Your task to perform on an android device: Check the news Image 0: 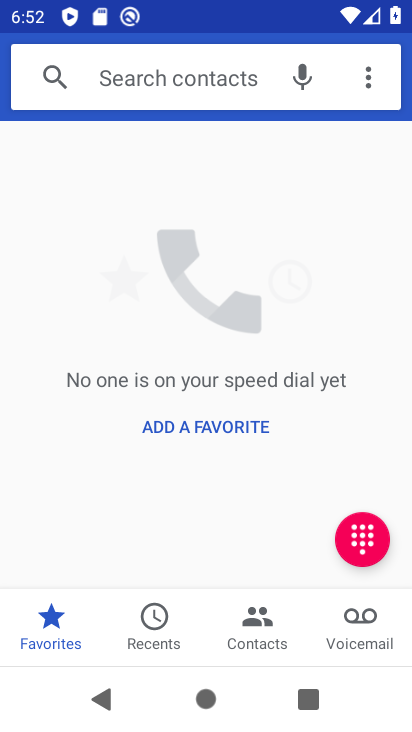
Step 0: press home button
Your task to perform on an android device: Check the news Image 1: 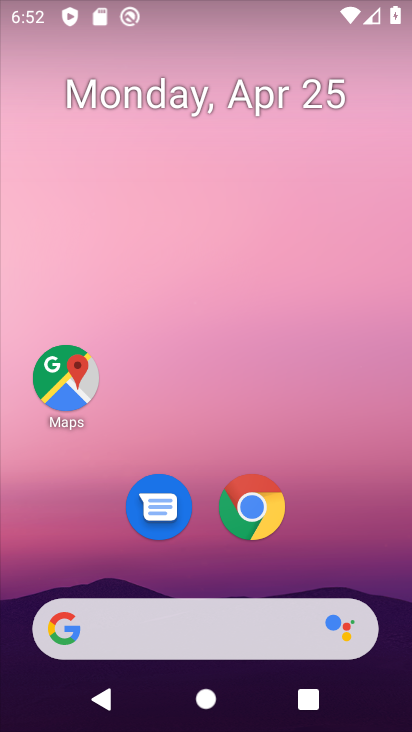
Step 1: drag from (329, 537) to (313, 206)
Your task to perform on an android device: Check the news Image 2: 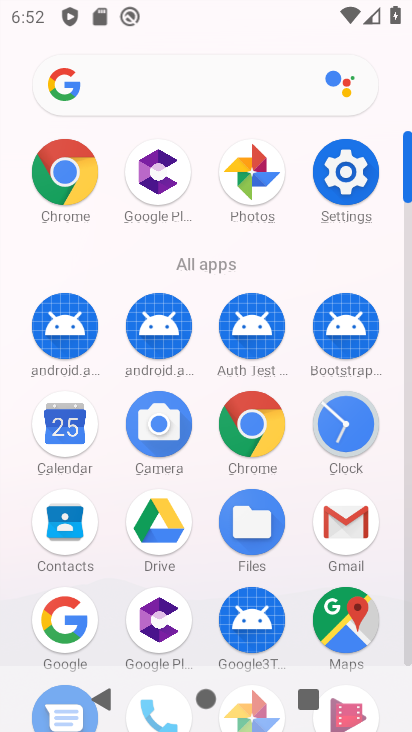
Step 2: click (52, 163)
Your task to perform on an android device: Check the news Image 3: 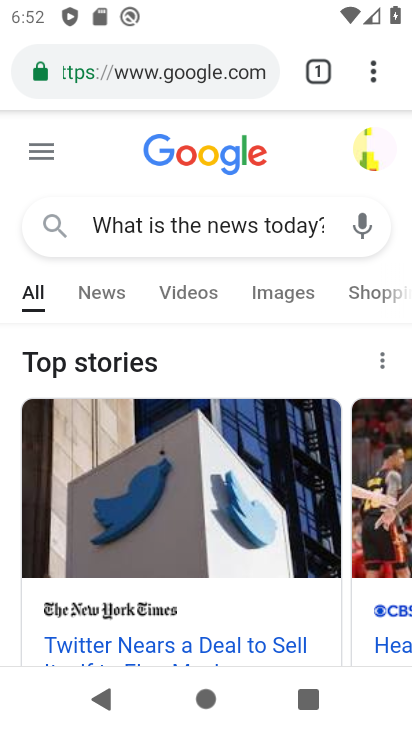
Step 3: click (195, 73)
Your task to perform on an android device: Check the news Image 4: 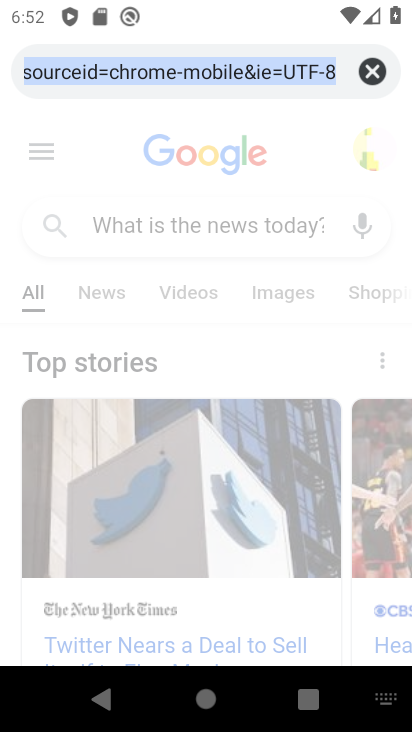
Step 4: click (371, 74)
Your task to perform on an android device: Check the news Image 5: 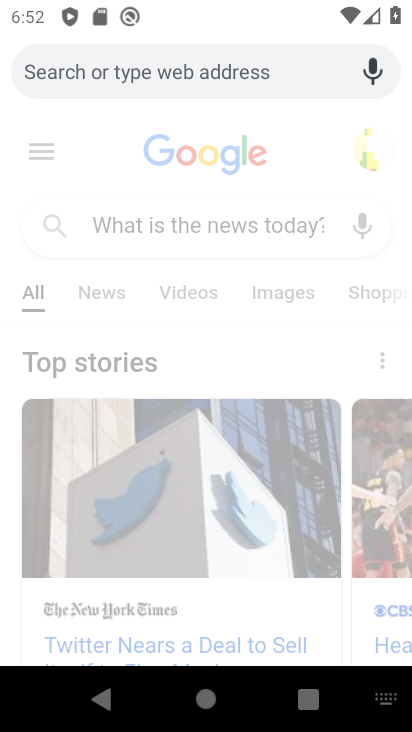
Step 5: click (213, 78)
Your task to perform on an android device: Check the news Image 6: 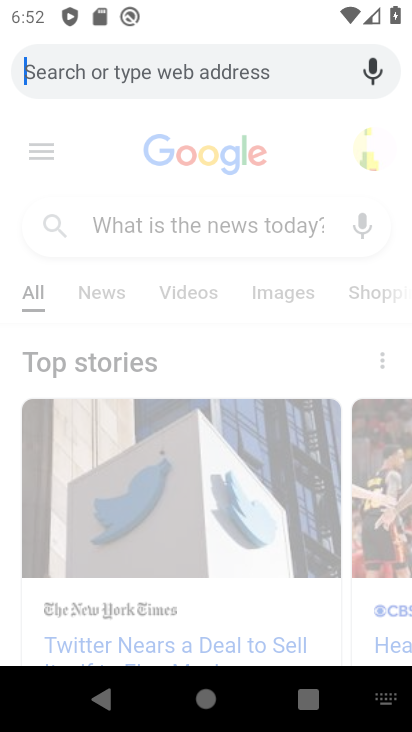
Step 6: type "news"
Your task to perform on an android device: Check the news Image 7: 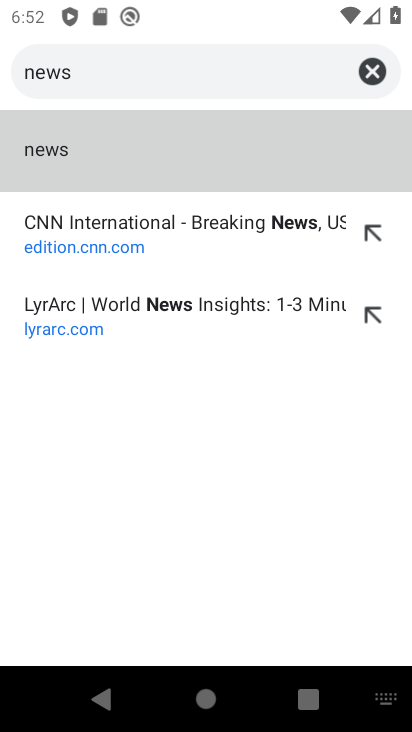
Step 7: click (34, 156)
Your task to perform on an android device: Check the news Image 8: 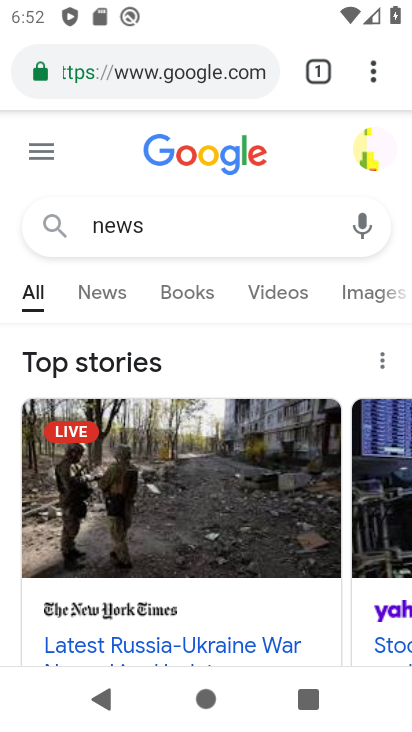
Step 8: task complete